Your task to perform on an android device: Find coffee shops on Maps Image 0: 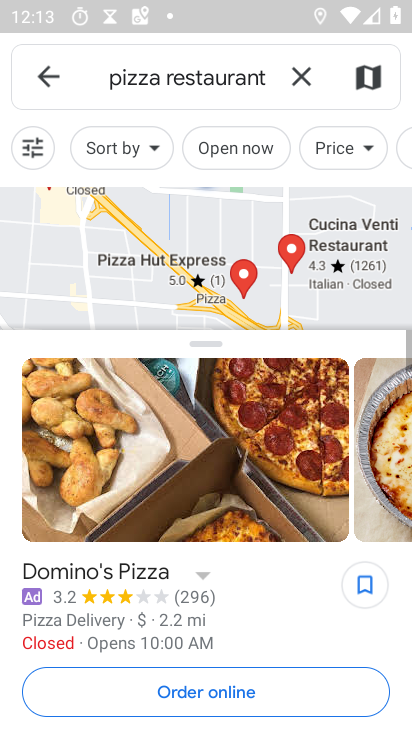
Step 0: press home button
Your task to perform on an android device: Find coffee shops on Maps Image 1: 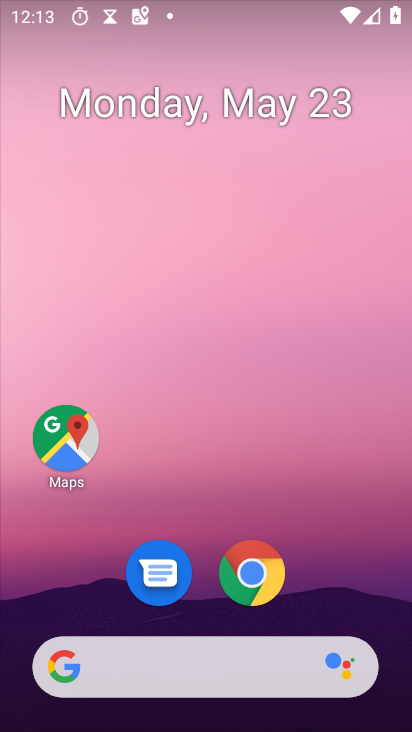
Step 1: click (64, 448)
Your task to perform on an android device: Find coffee shops on Maps Image 2: 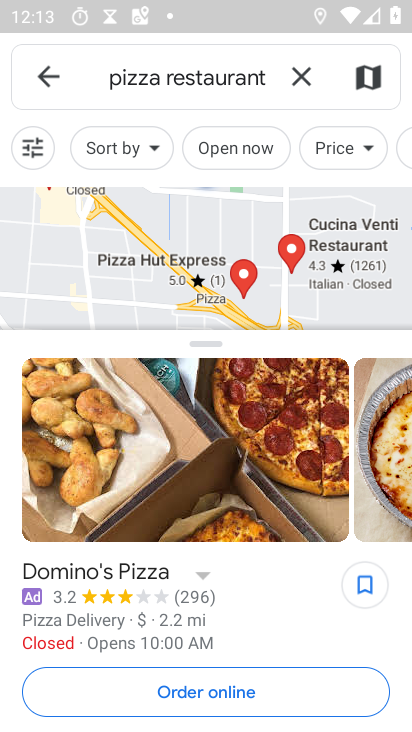
Step 2: click (301, 74)
Your task to perform on an android device: Find coffee shops on Maps Image 3: 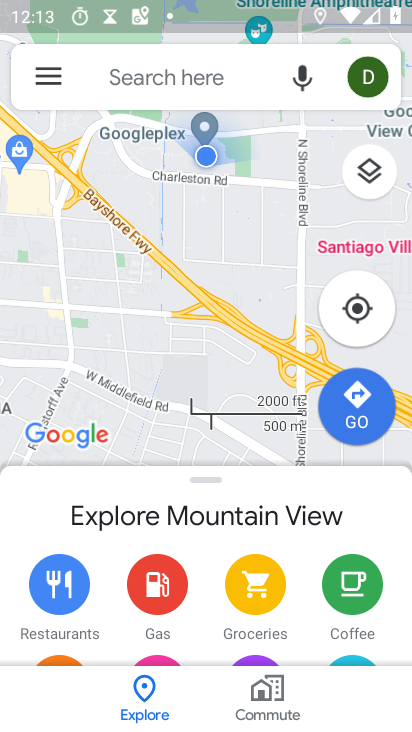
Step 3: click (130, 69)
Your task to perform on an android device: Find coffee shops on Maps Image 4: 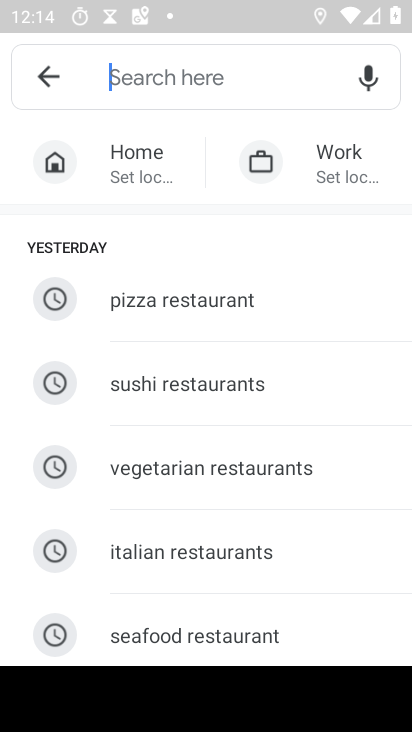
Step 4: type "coffee"
Your task to perform on an android device: Find coffee shops on Maps Image 5: 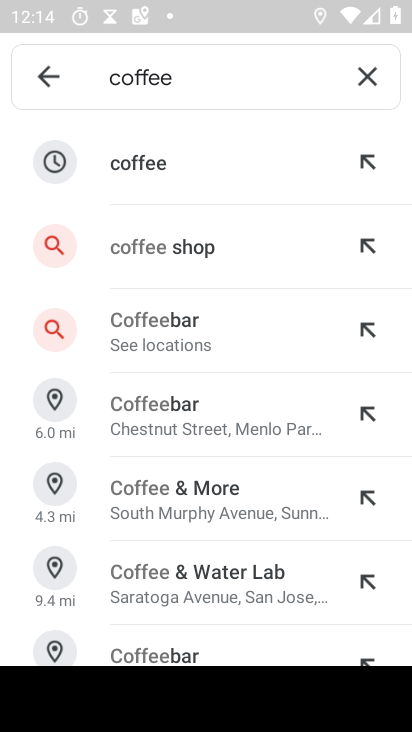
Step 5: click (134, 162)
Your task to perform on an android device: Find coffee shops on Maps Image 6: 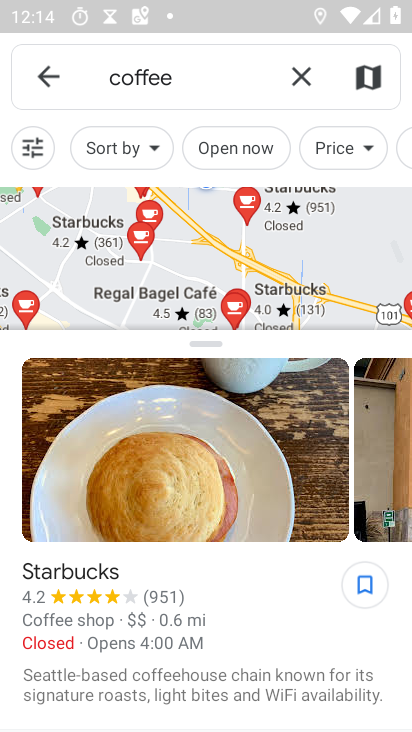
Step 6: task complete